Your task to perform on an android device: change keyboard looks Image 0: 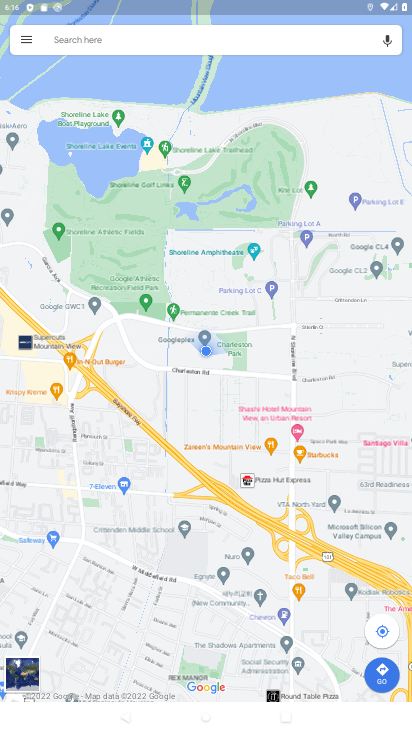
Step 0: press home button
Your task to perform on an android device: change keyboard looks Image 1: 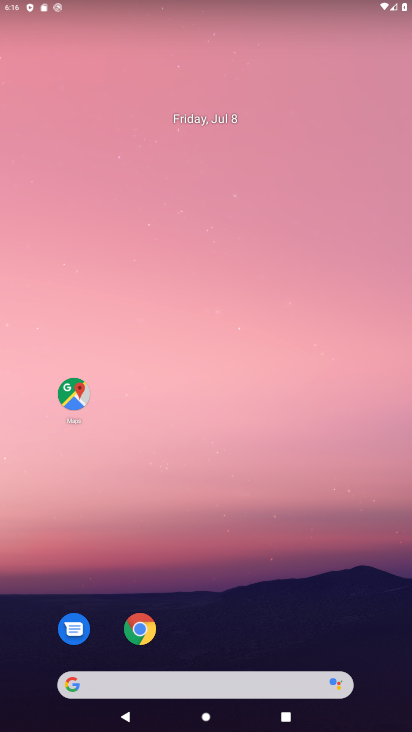
Step 1: drag from (305, 605) to (253, 150)
Your task to perform on an android device: change keyboard looks Image 2: 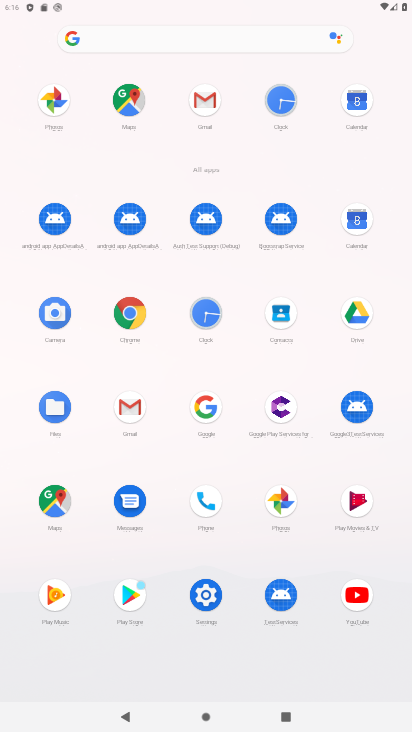
Step 2: click (219, 605)
Your task to perform on an android device: change keyboard looks Image 3: 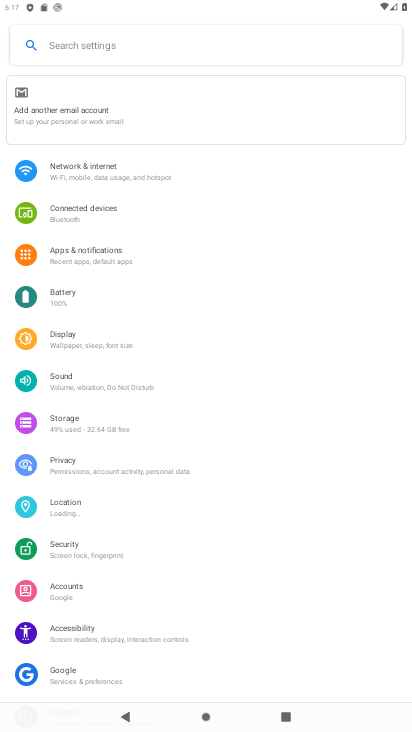
Step 3: drag from (208, 606) to (187, 127)
Your task to perform on an android device: change keyboard looks Image 4: 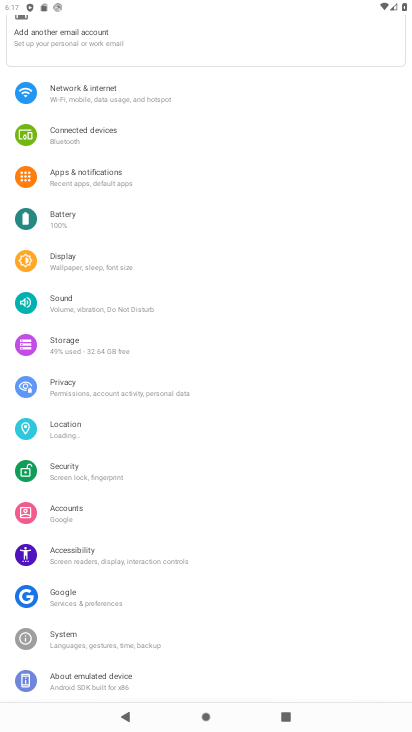
Step 4: click (134, 628)
Your task to perform on an android device: change keyboard looks Image 5: 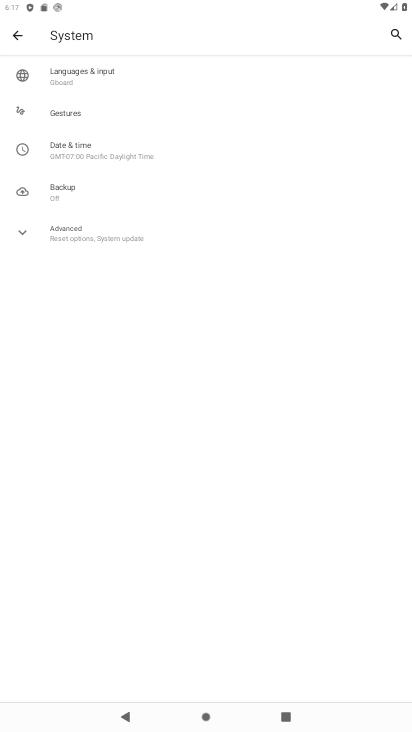
Step 5: click (48, 82)
Your task to perform on an android device: change keyboard looks Image 6: 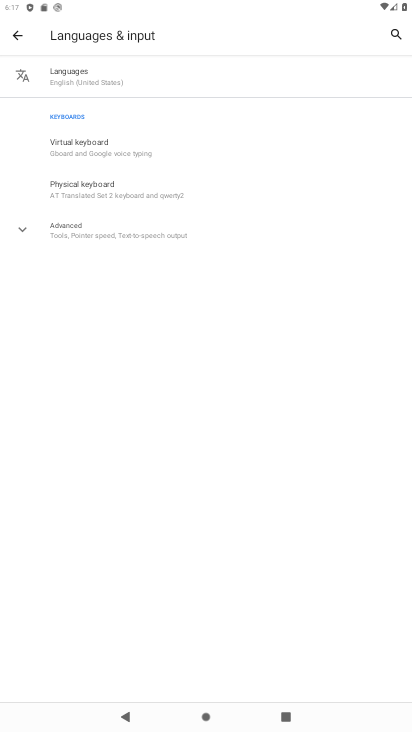
Step 6: click (94, 154)
Your task to perform on an android device: change keyboard looks Image 7: 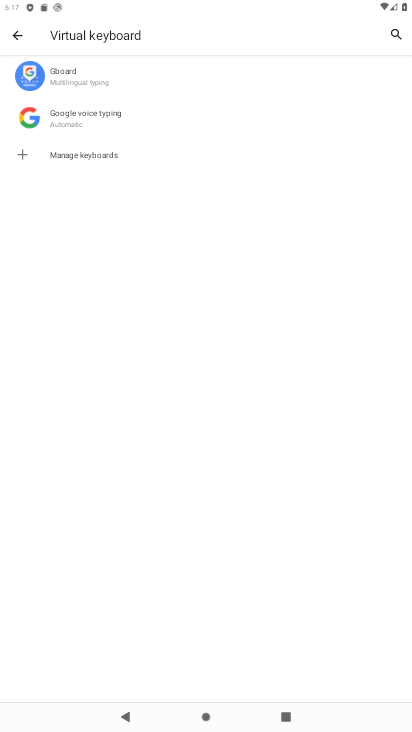
Step 7: click (94, 79)
Your task to perform on an android device: change keyboard looks Image 8: 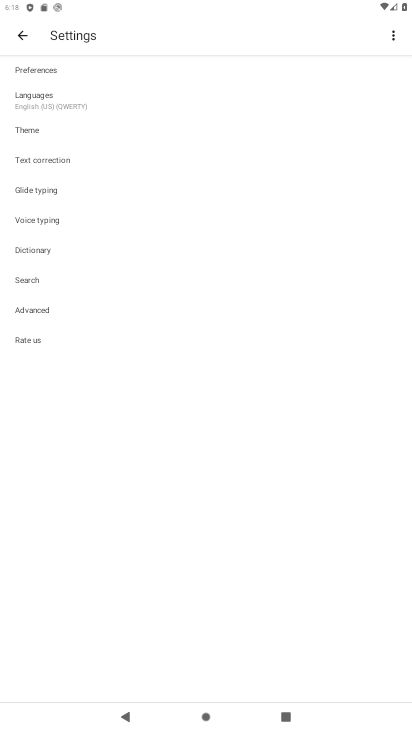
Step 8: click (63, 113)
Your task to perform on an android device: change keyboard looks Image 9: 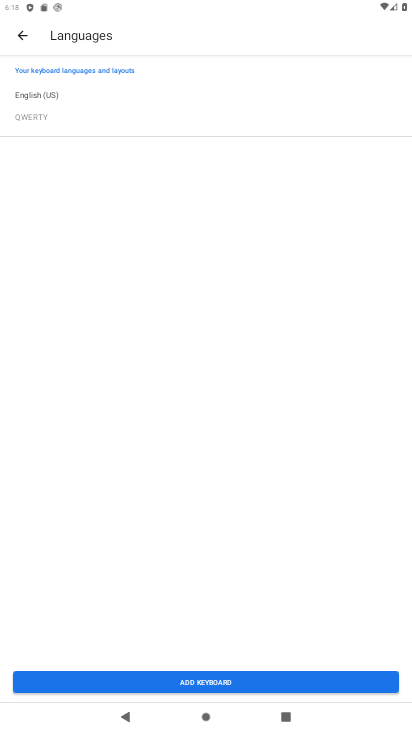
Step 9: click (10, 30)
Your task to perform on an android device: change keyboard looks Image 10: 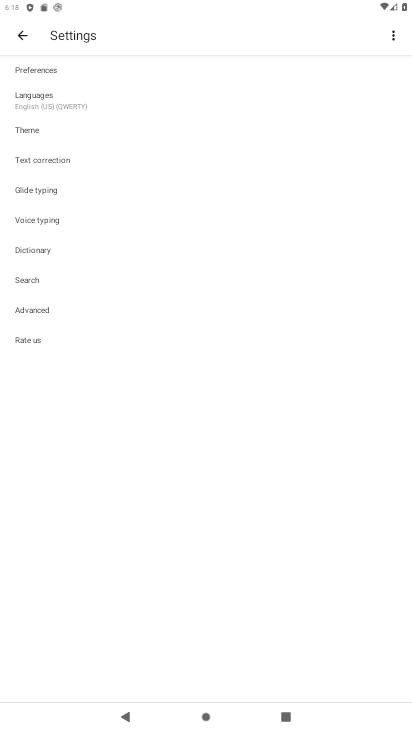
Step 10: click (71, 125)
Your task to perform on an android device: change keyboard looks Image 11: 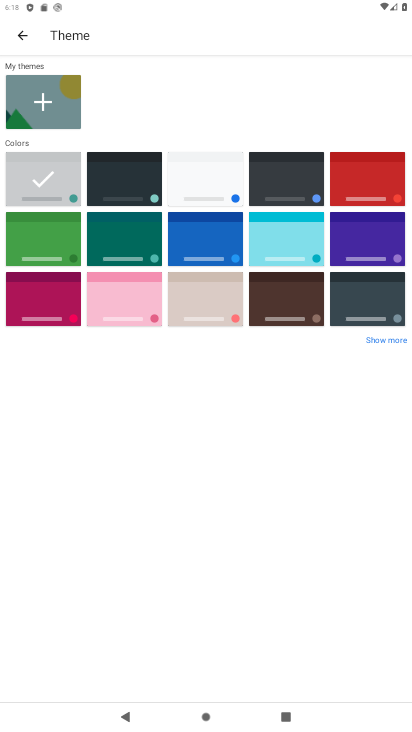
Step 11: click (217, 364)
Your task to perform on an android device: change keyboard looks Image 12: 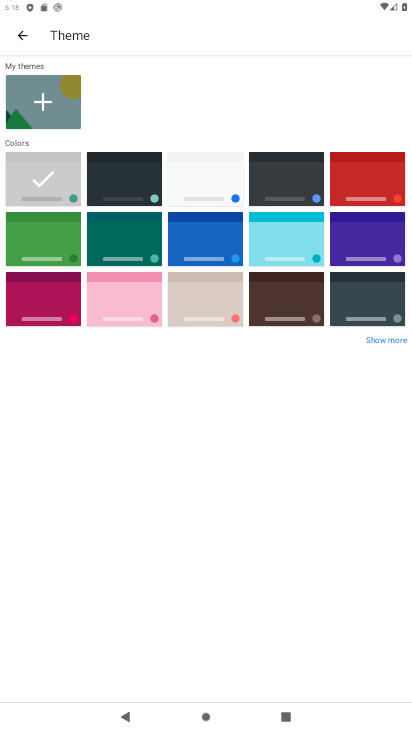
Step 12: click (206, 322)
Your task to perform on an android device: change keyboard looks Image 13: 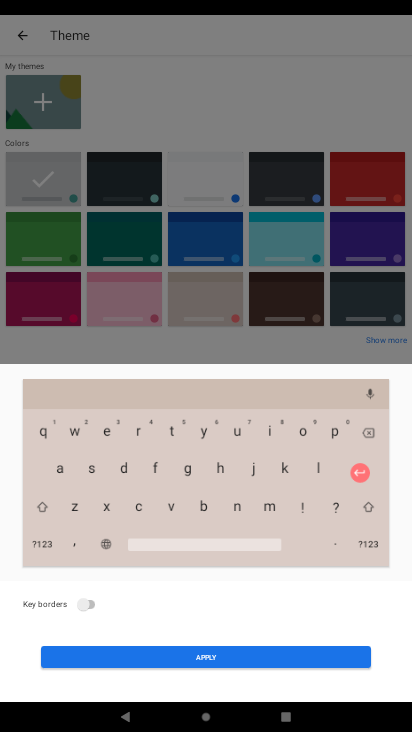
Step 13: click (289, 650)
Your task to perform on an android device: change keyboard looks Image 14: 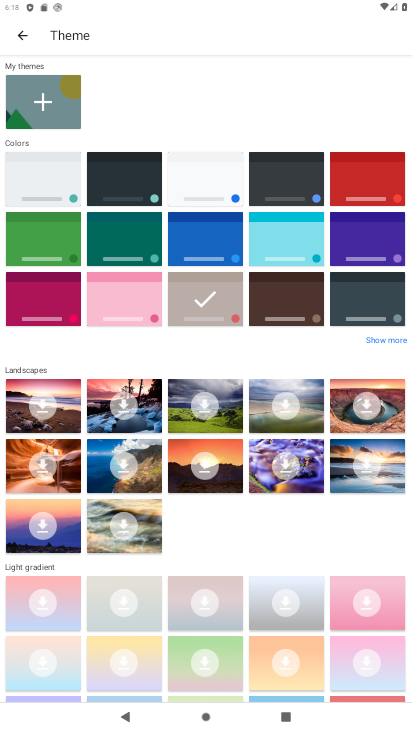
Step 14: task complete